Your task to perform on an android device: allow cookies in the chrome app Image 0: 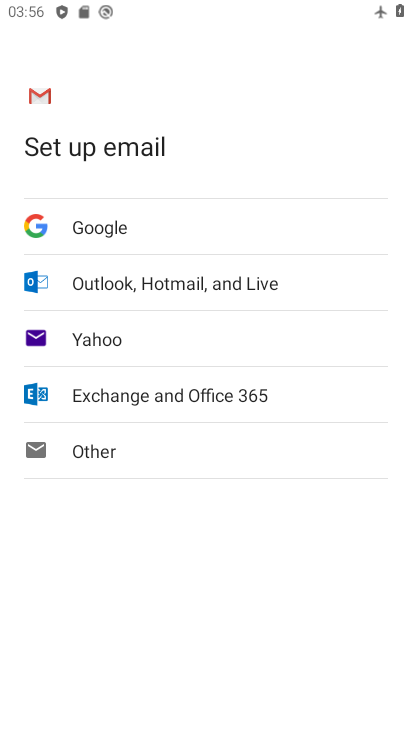
Step 0: press home button
Your task to perform on an android device: allow cookies in the chrome app Image 1: 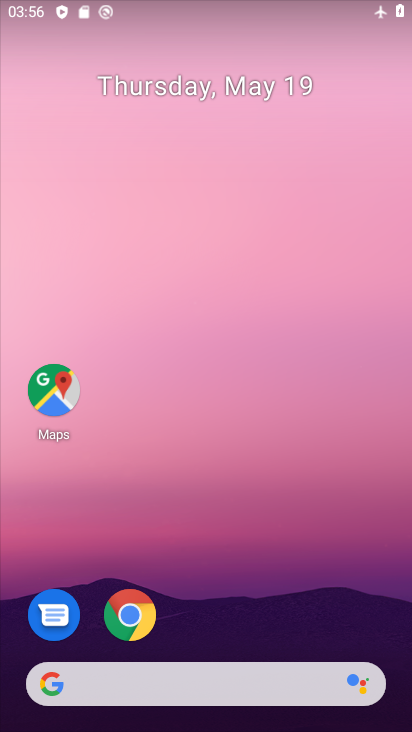
Step 1: click (132, 614)
Your task to perform on an android device: allow cookies in the chrome app Image 2: 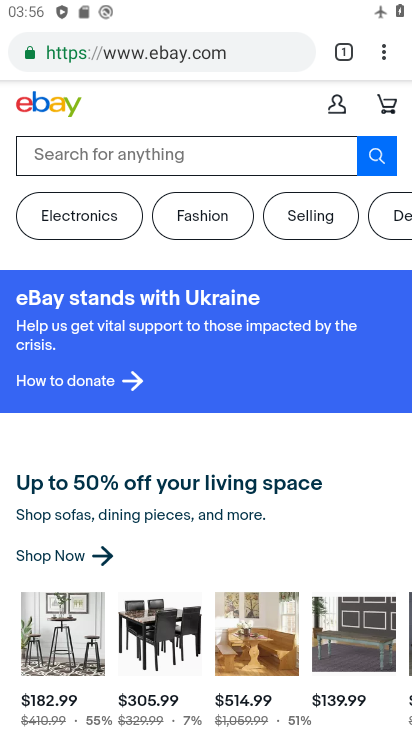
Step 2: drag from (384, 49) to (184, 581)
Your task to perform on an android device: allow cookies in the chrome app Image 3: 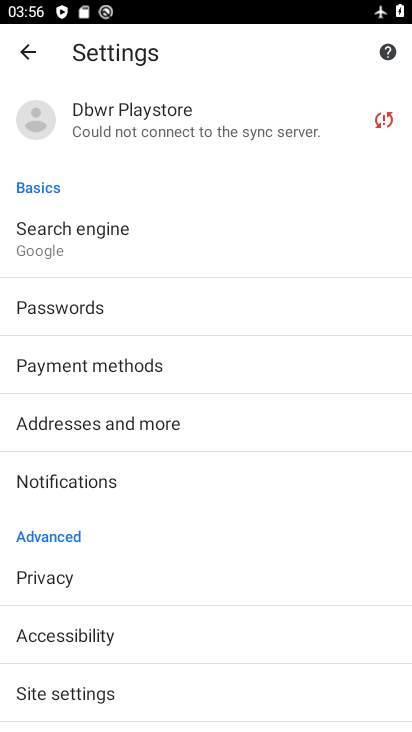
Step 3: click (82, 695)
Your task to perform on an android device: allow cookies in the chrome app Image 4: 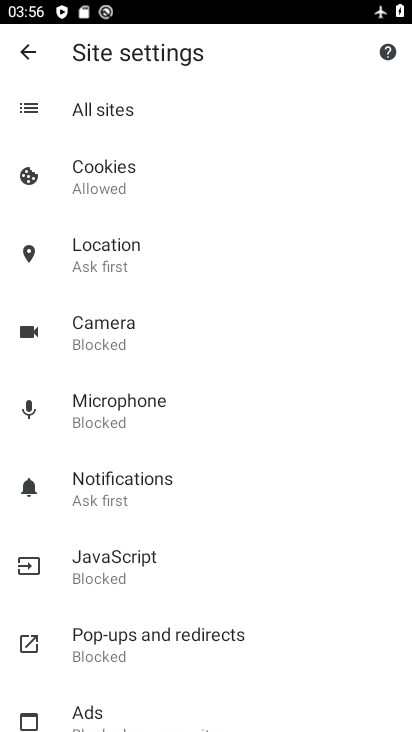
Step 4: click (85, 187)
Your task to perform on an android device: allow cookies in the chrome app Image 5: 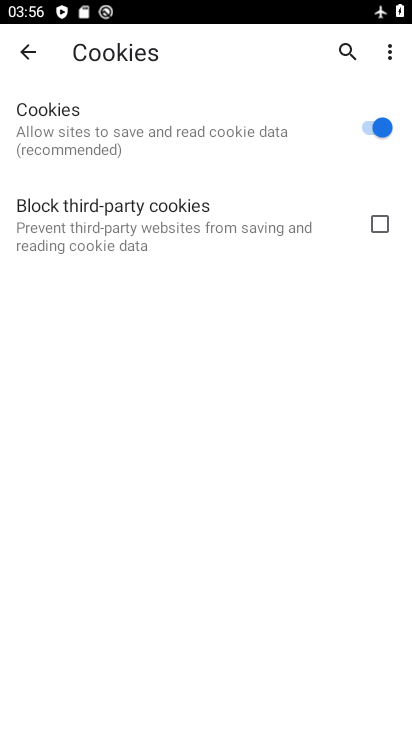
Step 5: task complete